Your task to perform on an android device: open app "Mercado Libre" (install if not already installed) and enter user name: "tolerating@yahoo.com" and password: "Kepler" Image 0: 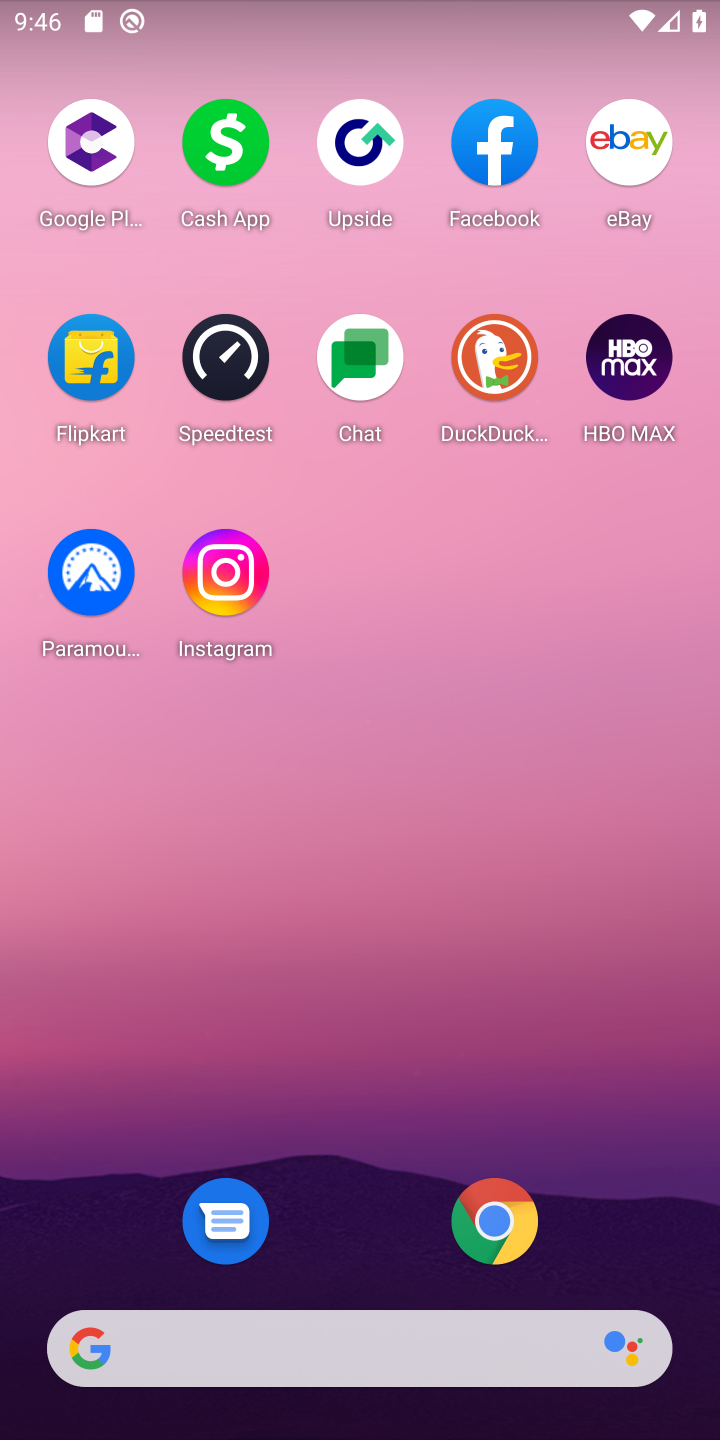
Step 0: drag from (340, 1156) to (363, 292)
Your task to perform on an android device: open app "Mercado Libre" (install if not already installed) and enter user name: "tolerating@yahoo.com" and password: "Kepler" Image 1: 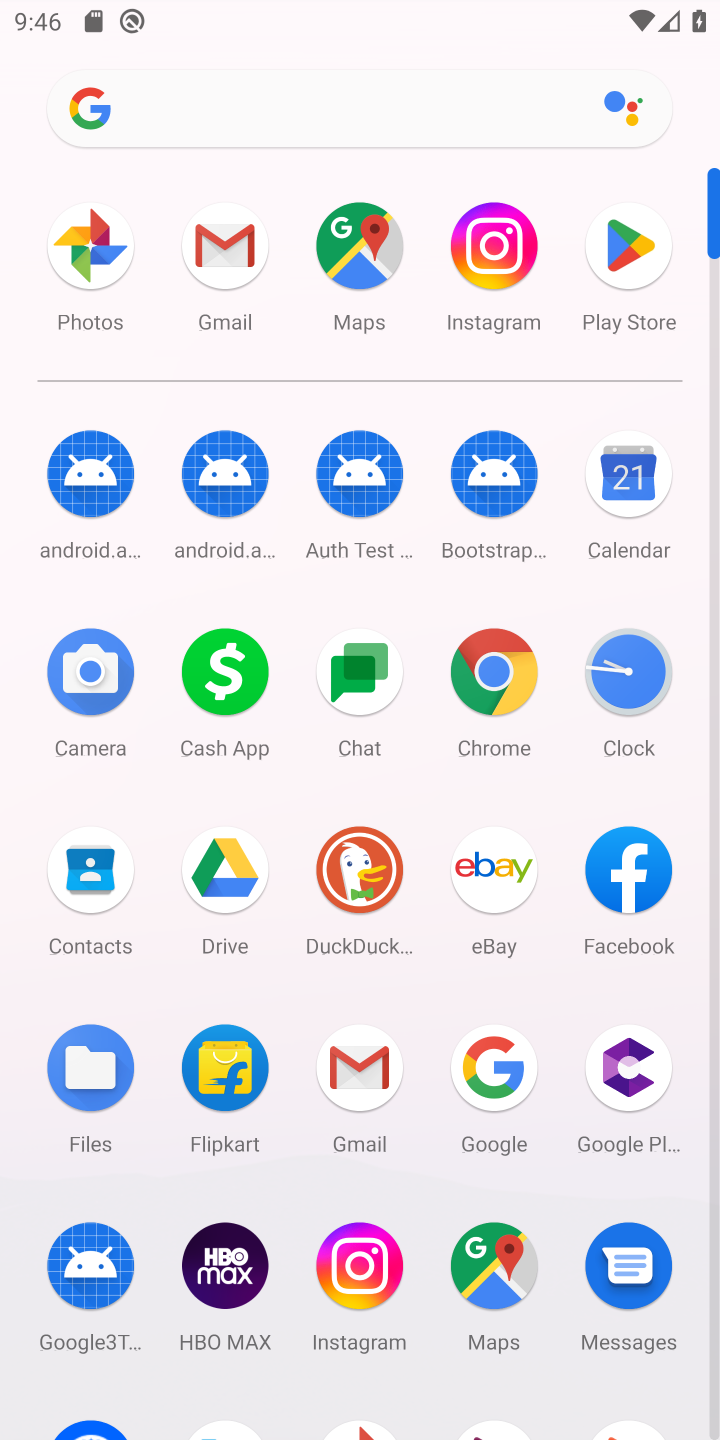
Step 1: click (646, 284)
Your task to perform on an android device: open app "Mercado Libre" (install if not already installed) and enter user name: "tolerating@yahoo.com" and password: "Kepler" Image 2: 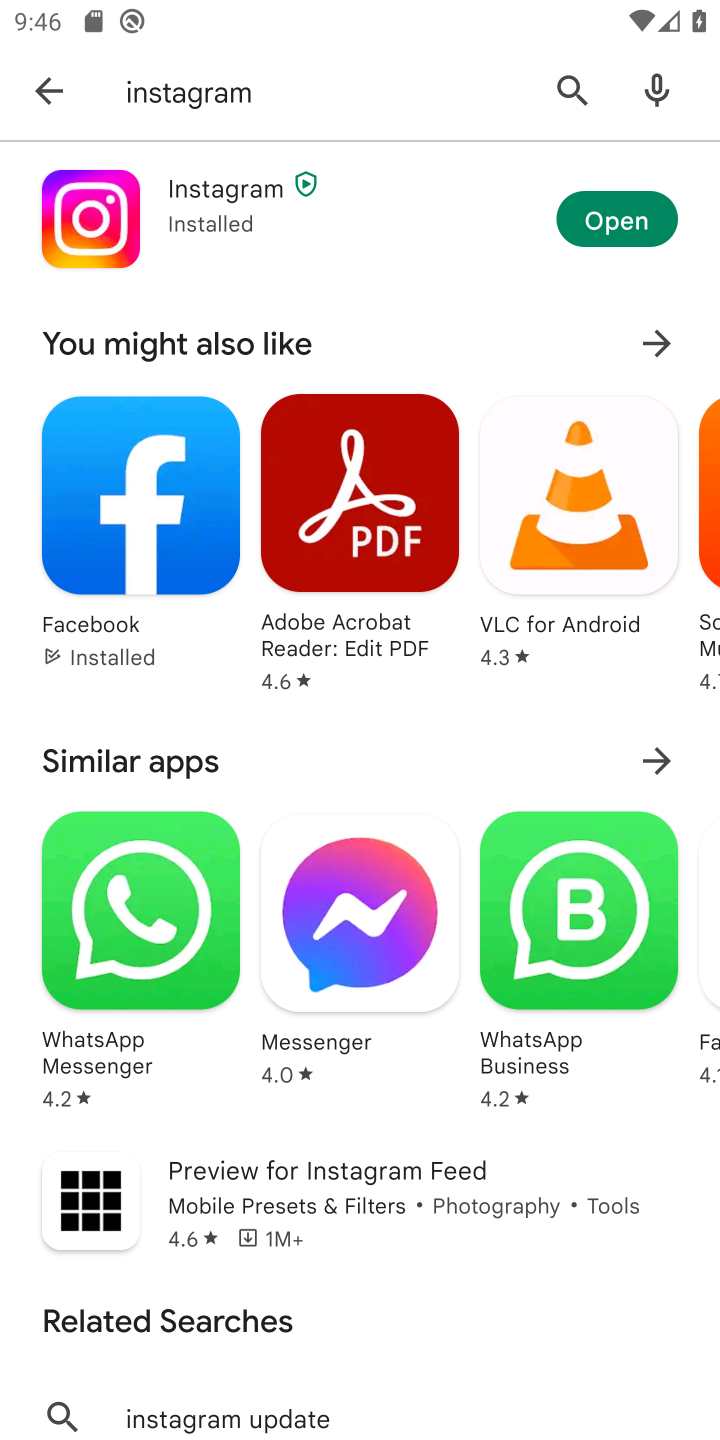
Step 2: click (552, 103)
Your task to perform on an android device: open app "Mercado Libre" (install if not already installed) and enter user name: "tolerating@yahoo.com" and password: "Kepler" Image 3: 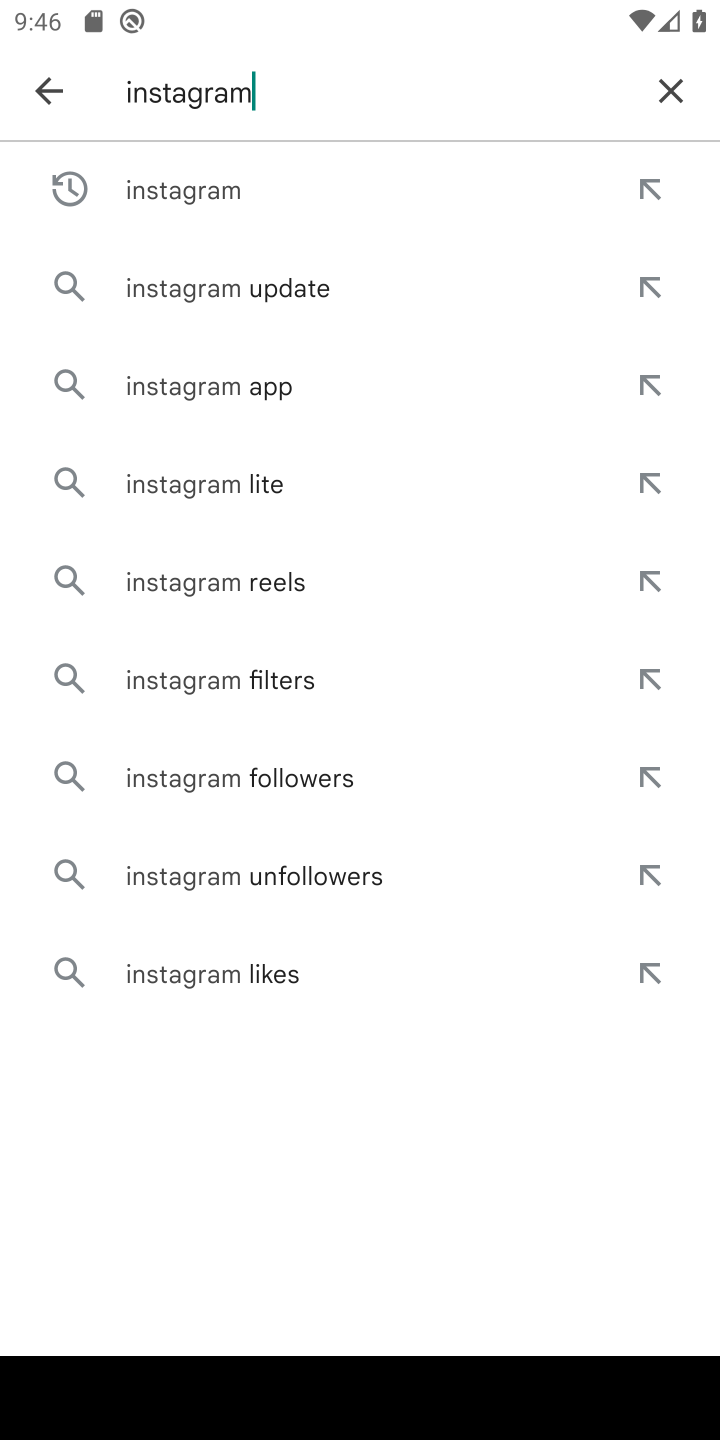
Step 3: click (671, 110)
Your task to perform on an android device: open app "Mercado Libre" (install if not already installed) and enter user name: "tolerating@yahoo.com" and password: "Kepler" Image 4: 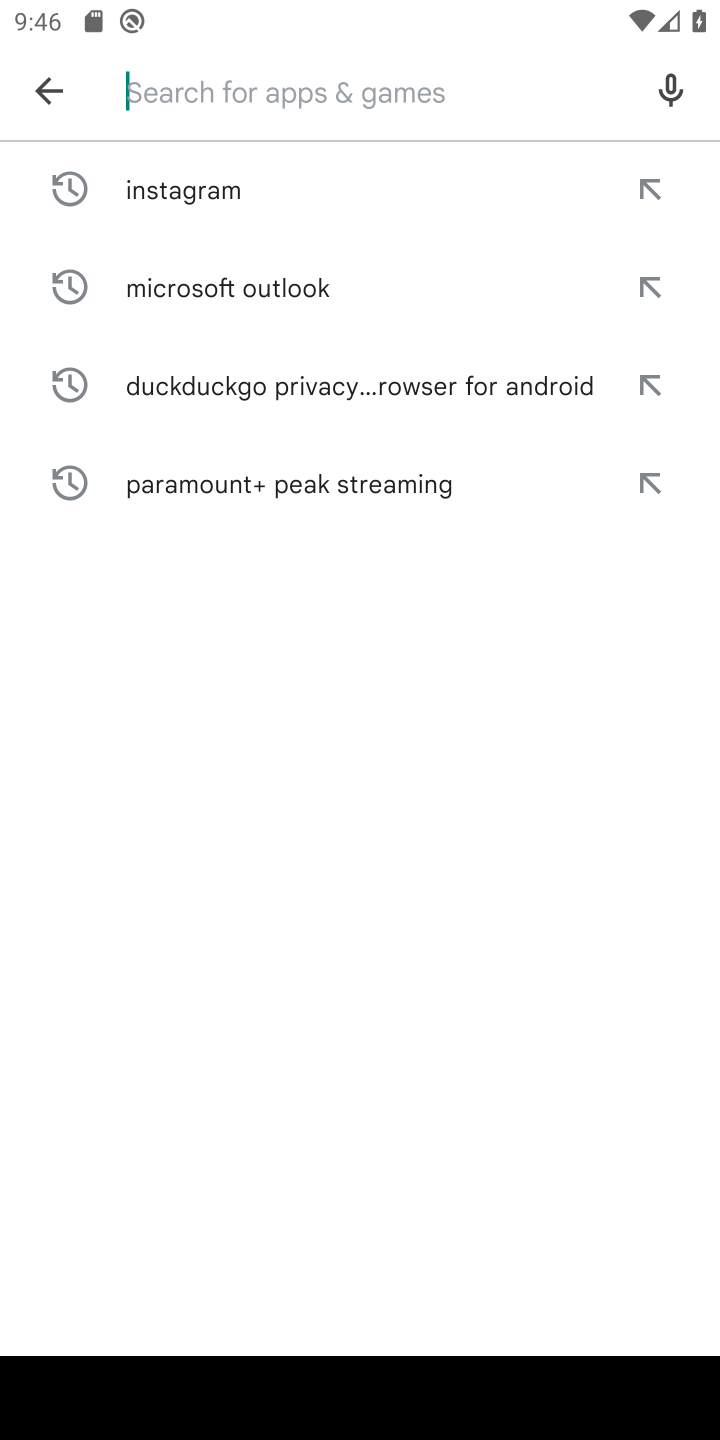
Step 4: type "Mercado Libre"
Your task to perform on an android device: open app "Mercado Libre" (install if not already installed) and enter user name: "tolerating@yahoo.com" and password: "Kepler" Image 5: 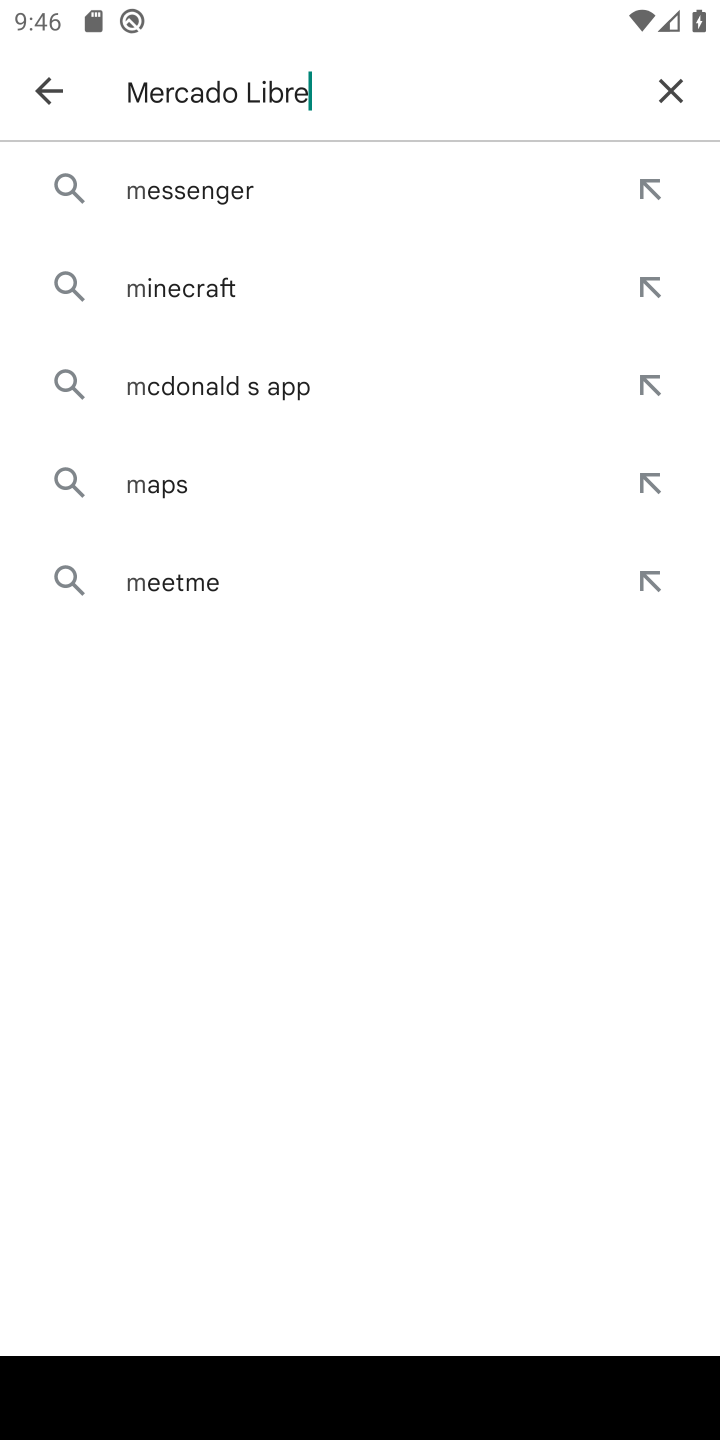
Step 5: type ""
Your task to perform on an android device: open app "Mercado Libre" (install if not already installed) and enter user name: "tolerating@yahoo.com" and password: "Kepler" Image 6: 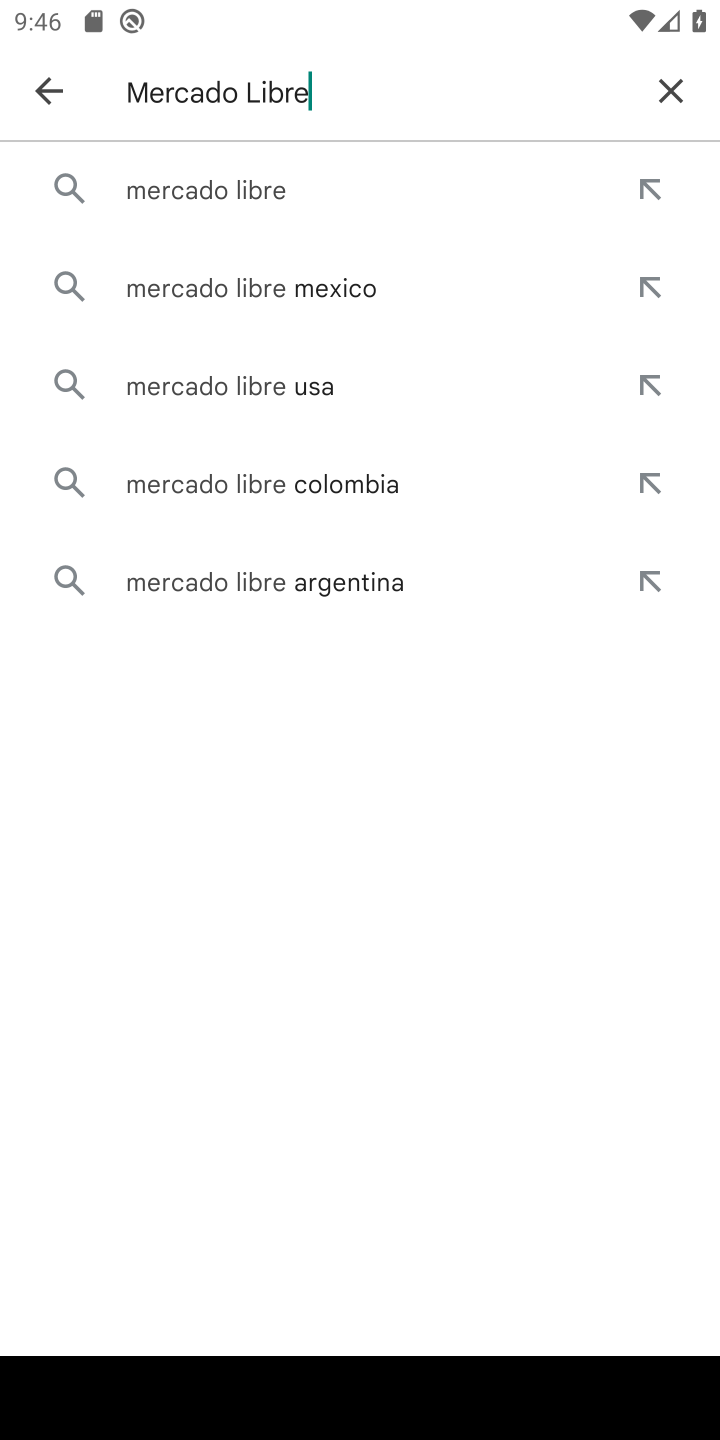
Step 6: click (259, 187)
Your task to perform on an android device: open app "Mercado Libre" (install if not already installed) and enter user name: "tolerating@yahoo.com" and password: "Kepler" Image 7: 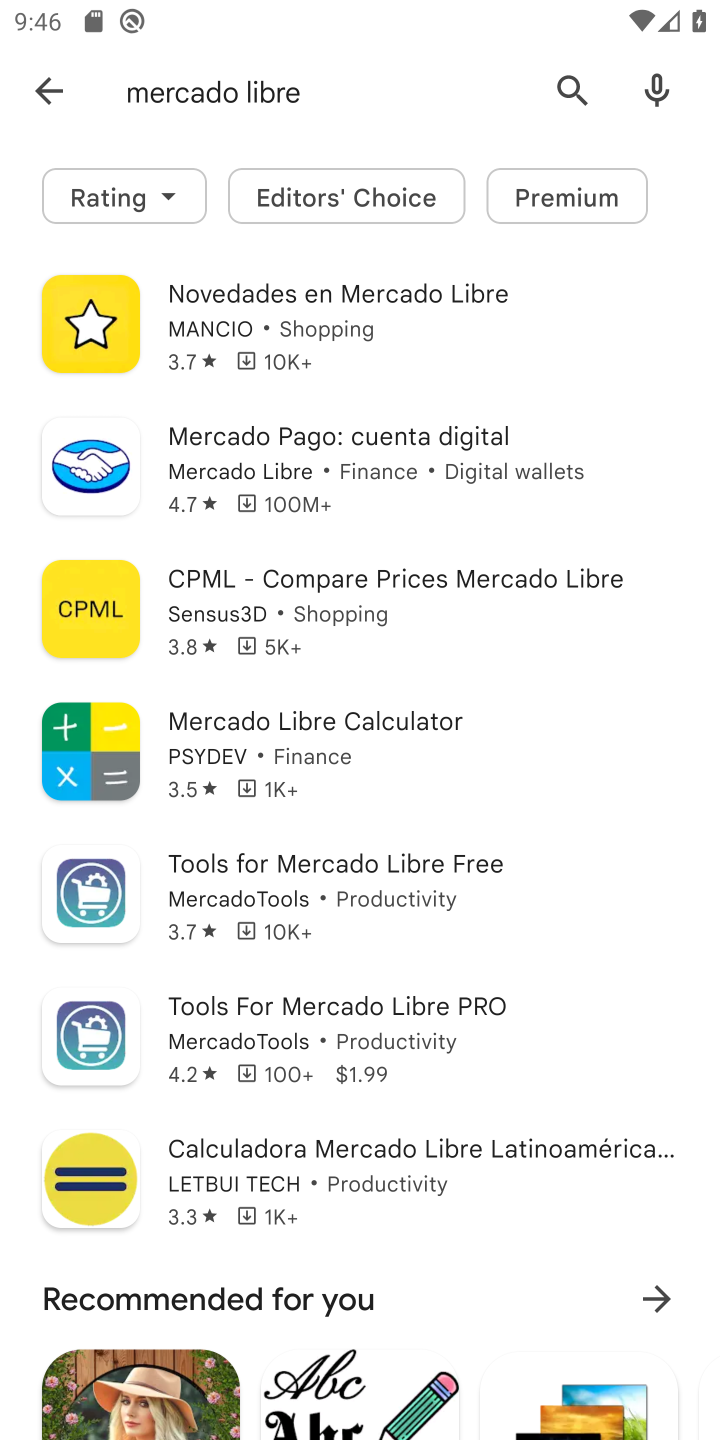
Step 7: drag from (438, 1047) to (379, 382)
Your task to perform on an android device: open app "Mercado Libre" (install if not already installed) and enter user name: "tolerating@yahoo.com" and password: "Kepler" Image 8: 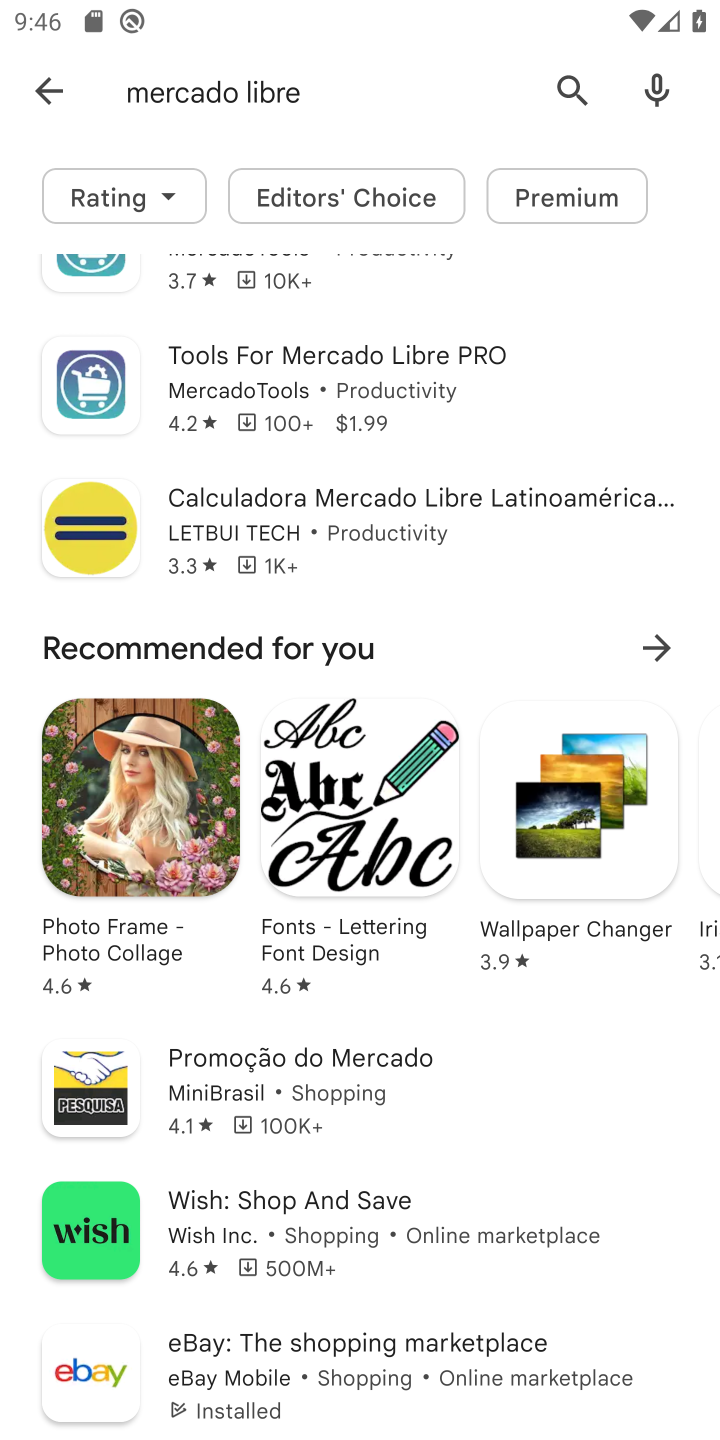
Step 8: drag from (376, 373) to (474, 908)
Your task to perform on an android device: open app "Mercado Libre" (install if not already installed) and enter user name: "tolerating@yahoo.com" and password: "Kepler" Image 9: 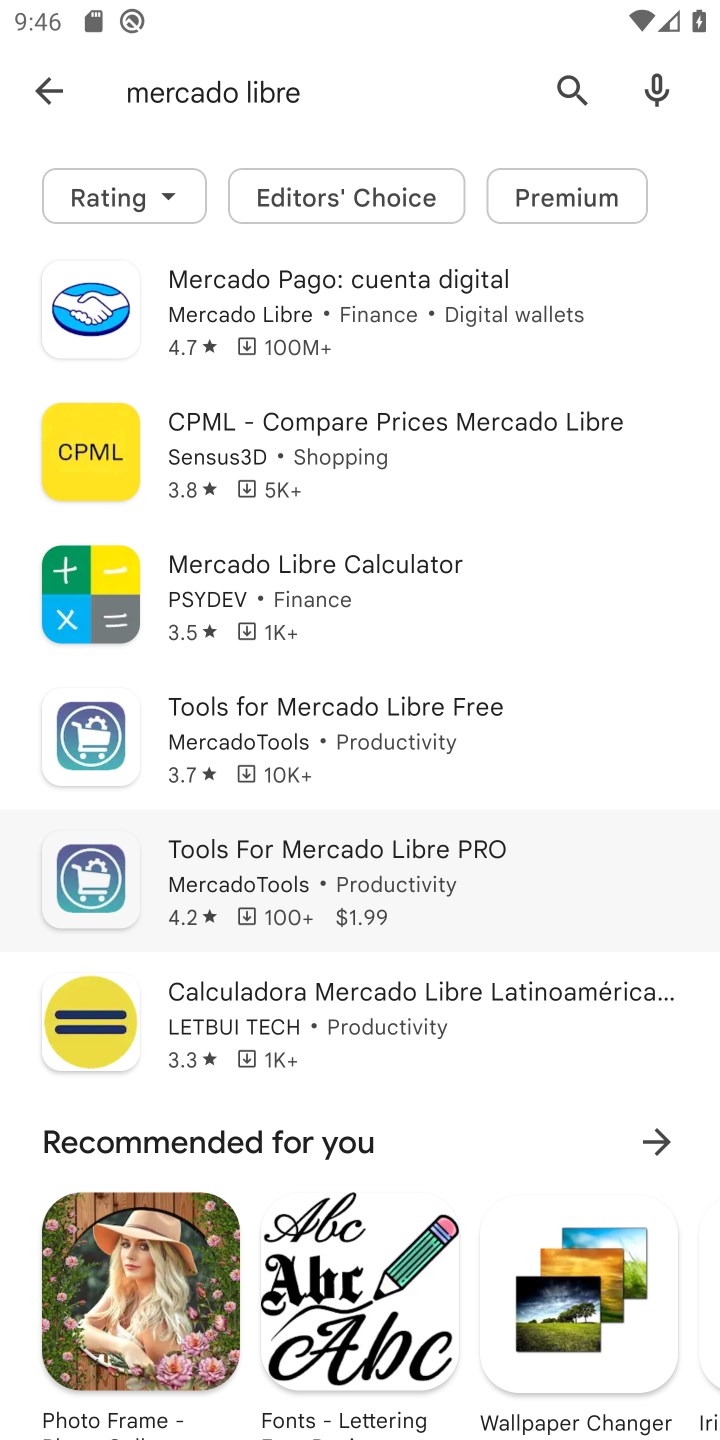
Step 9: drag from (428, 380) to (516, 920)
Your task to perform on an android device: open app "Mercado Libre" (install if not already installed) and enter user name: "tolerating@yahoo.com" and password: "Kepler" Image 10: 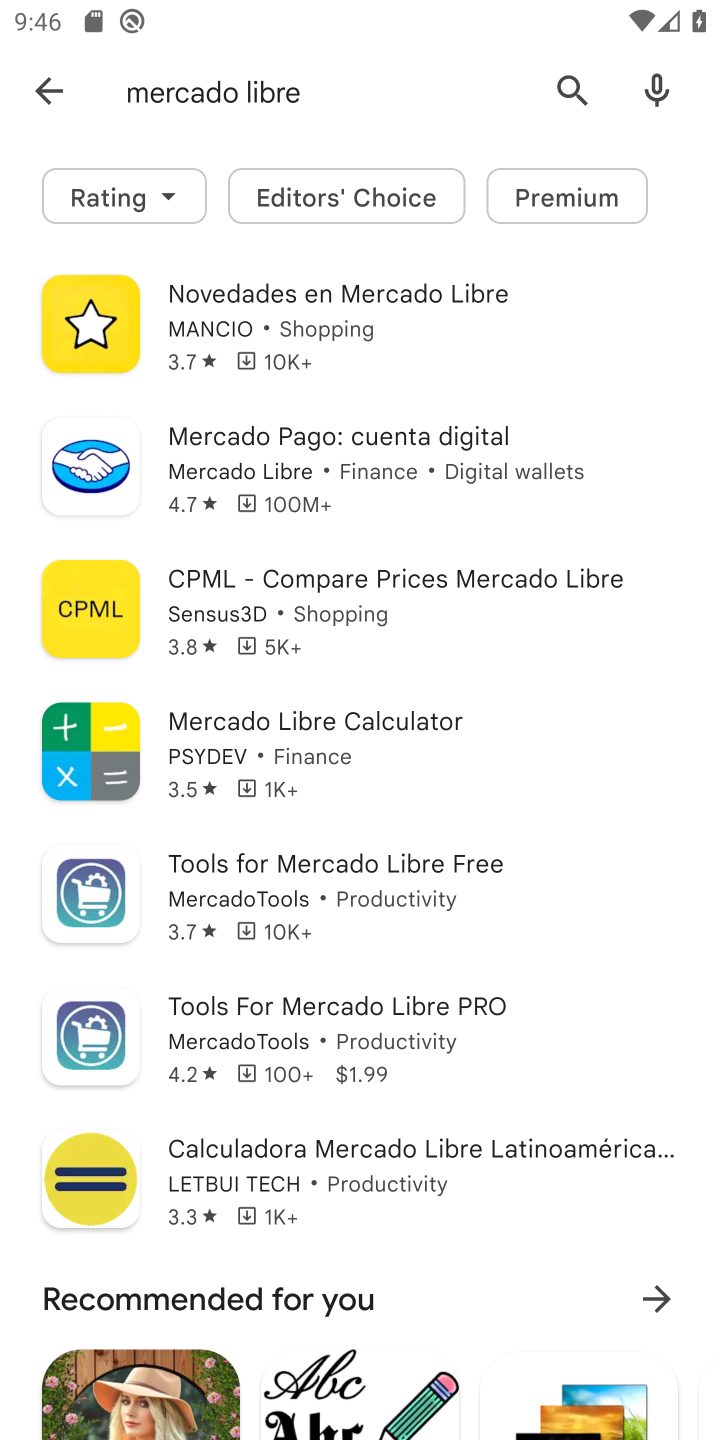
Step 10: click (393, 485)
Your task to perform on an android device: open app "Mercado Libre" (install if not already installed) and enter user name: "tolerating@yahoo.com" and password: "Kepler" Image 11: 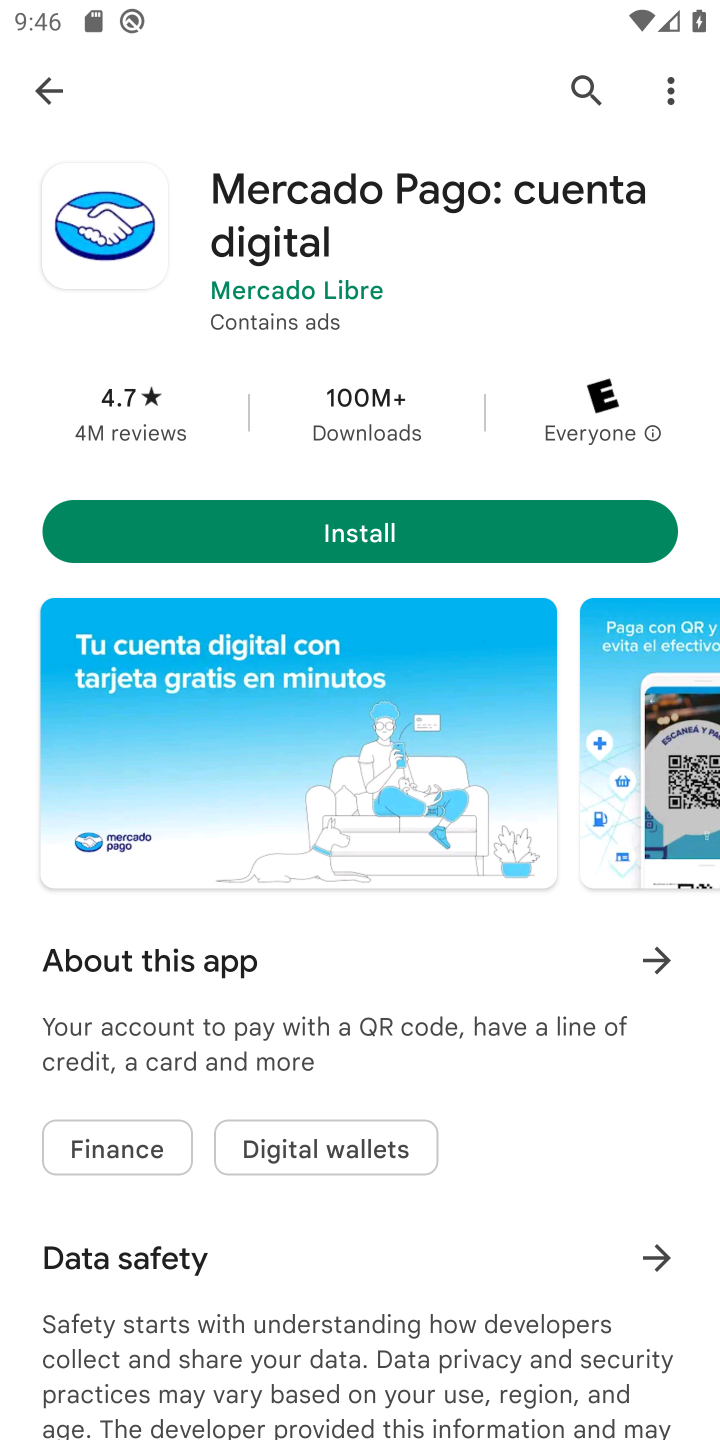
Step 11: click (477, 527)
Your task to perform on an android device: open app "Mercado Libre" (install if not already installed) and enter user name: "tolerating@yahoo.com" and password: "Kepler" Image 12: 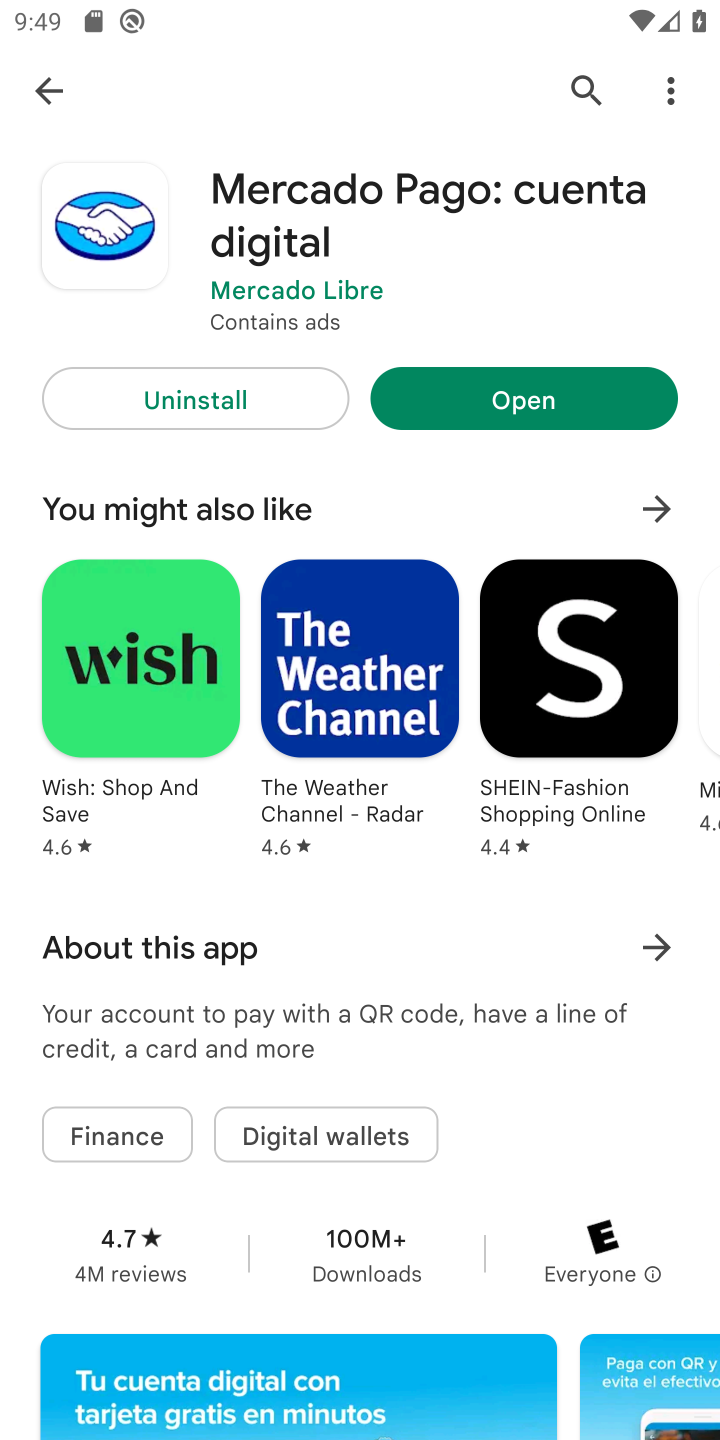
Step 12: click (592, 377)
Your task to perform on an android device: open app "Mercado Libre" (install if not already installed) and enter user name: "tolerating@yahoo.com" and password: "Kepler" Image 13: 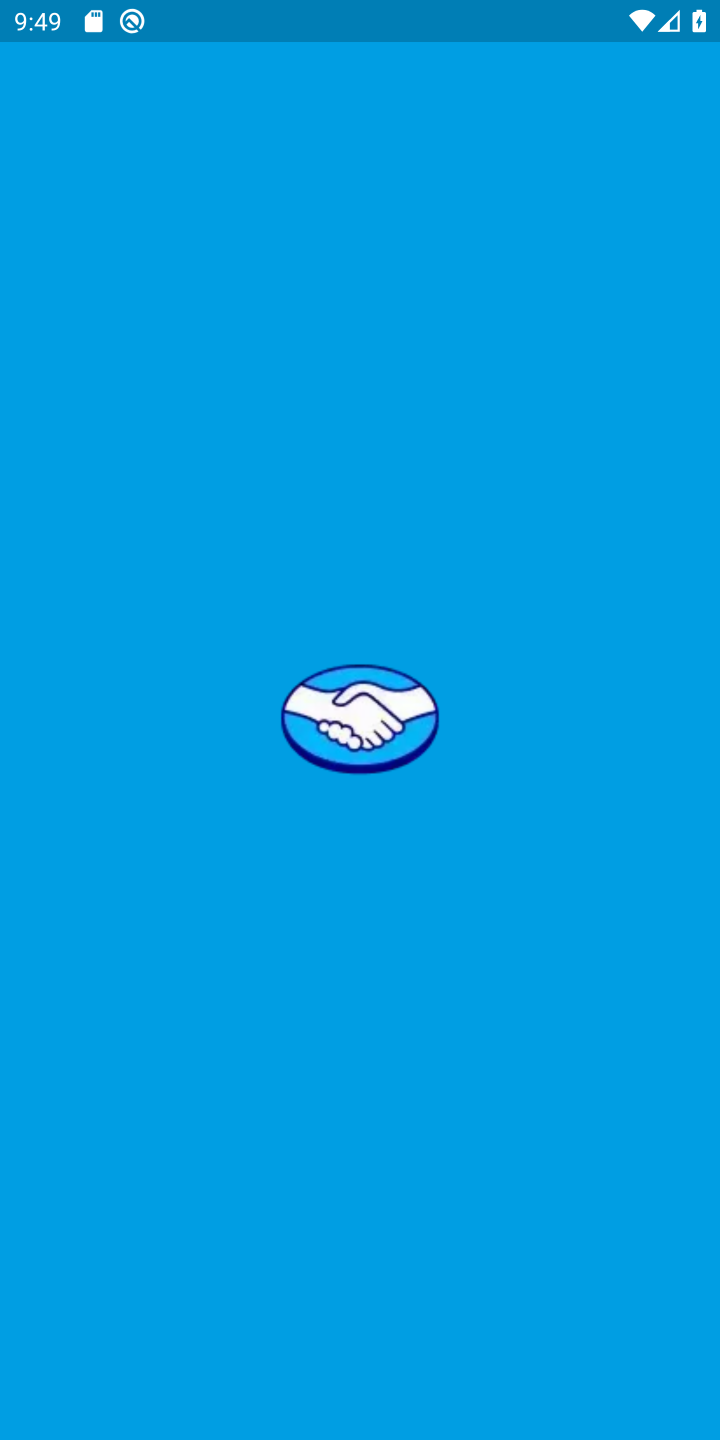
Step 13: task complete